Your task to perform on an android device: Go to wifi settings Image 0: 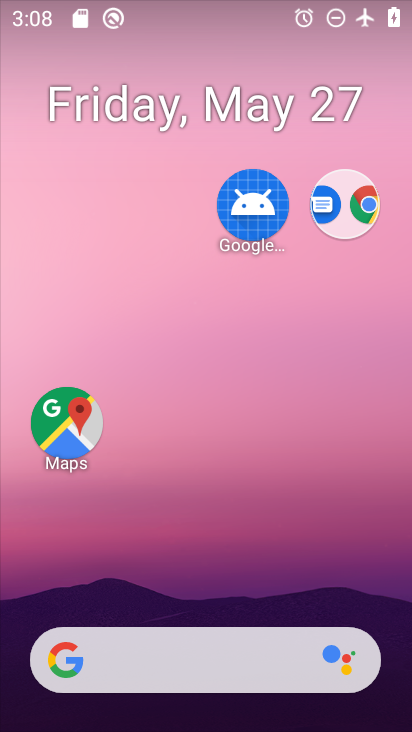
Step 0: drag from (216, 636) to (271, 277)
Your task to perform on an android device: Go to wifi settings Image 1: 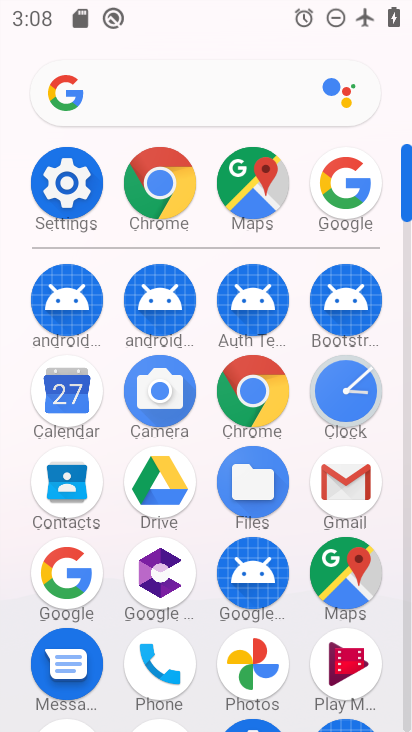
Step 1: click (51, 204)
Your task to perform on an android device: Go to wifi settings Image 2: 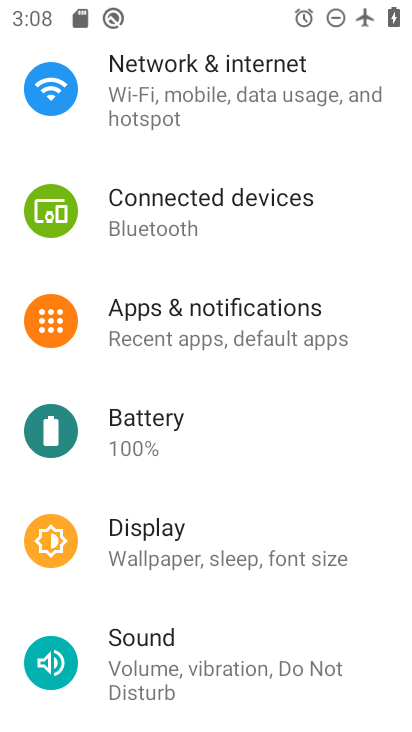
Step 2: drag from (255, 307) to (230, 497)
Your task to perform on an android device: Go to wifi settings Image 3: 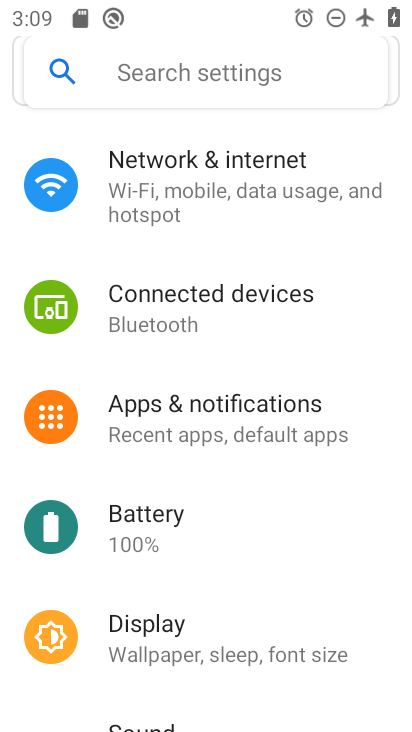
Step 3: drag from (274, 181) to (289, 418)
Your task to perform on an android device: Go to wifi settings Image 4: 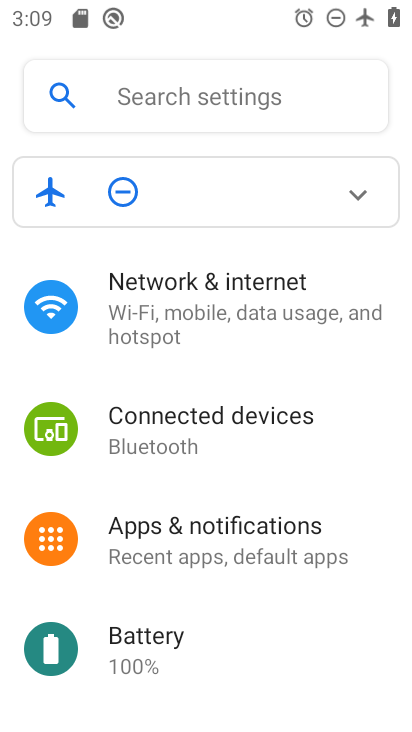
Step 4: click (251, 293)
Your task to perform on an android device: Go to wifi settings Image 5: 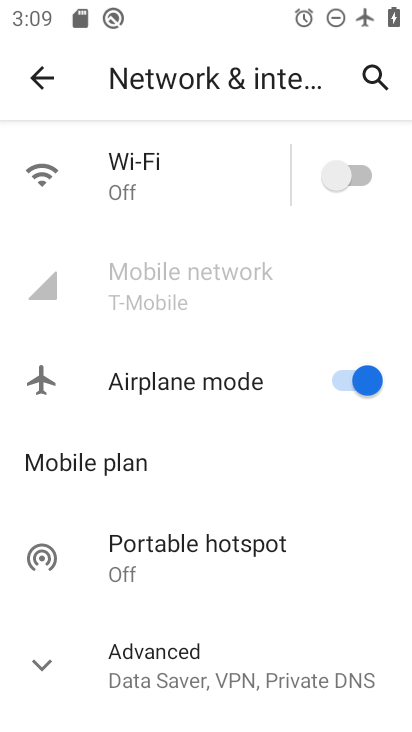
Step 5: click (191, 164)
Your task to perform on an android device: Go to wifi settings Image 6: 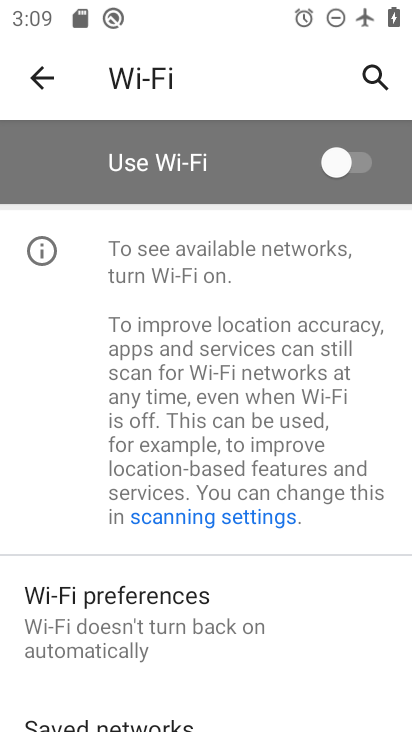
Step 6: task complete